Your task to perform on an android device: Open CNN.com Image 0: 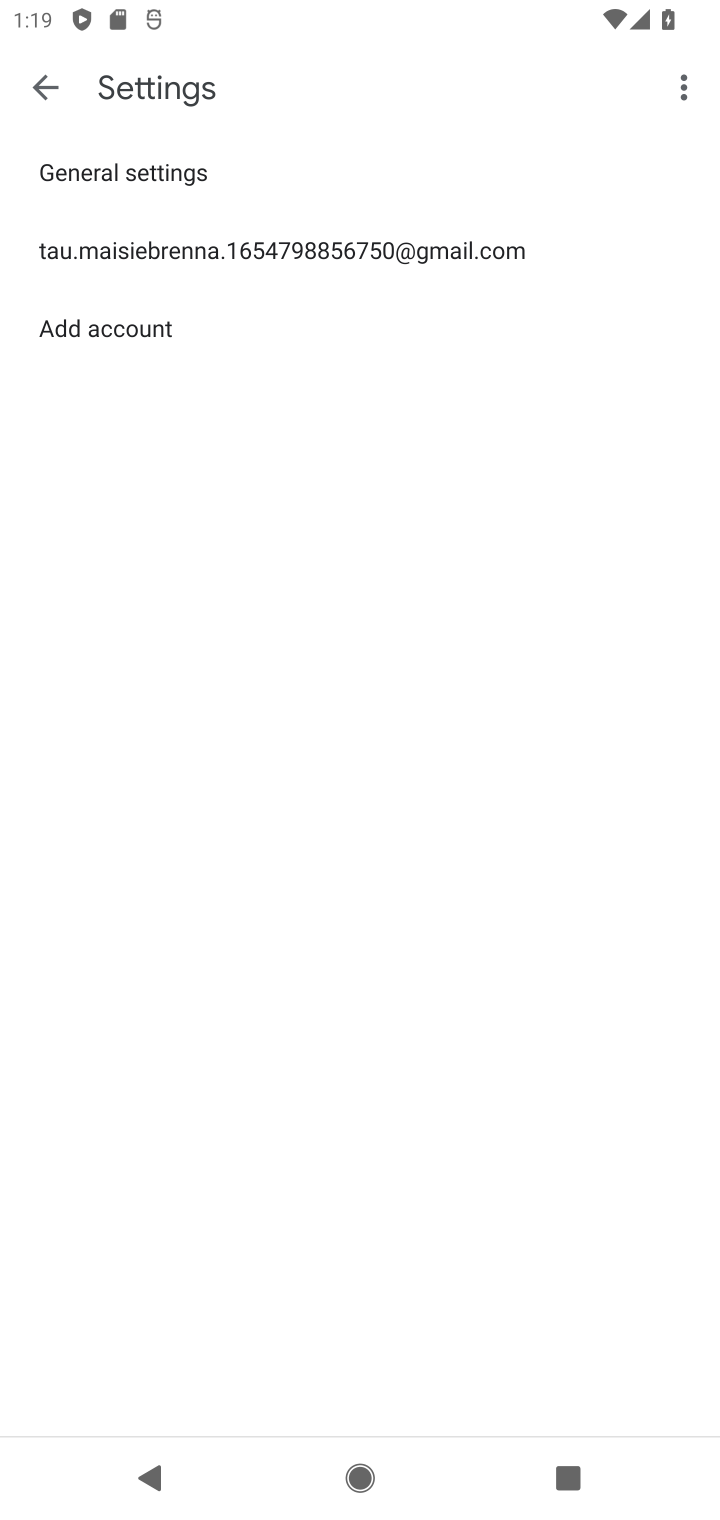
Step 0: press home button
Your task to perform on an android device: Open CNN.com Image 1: 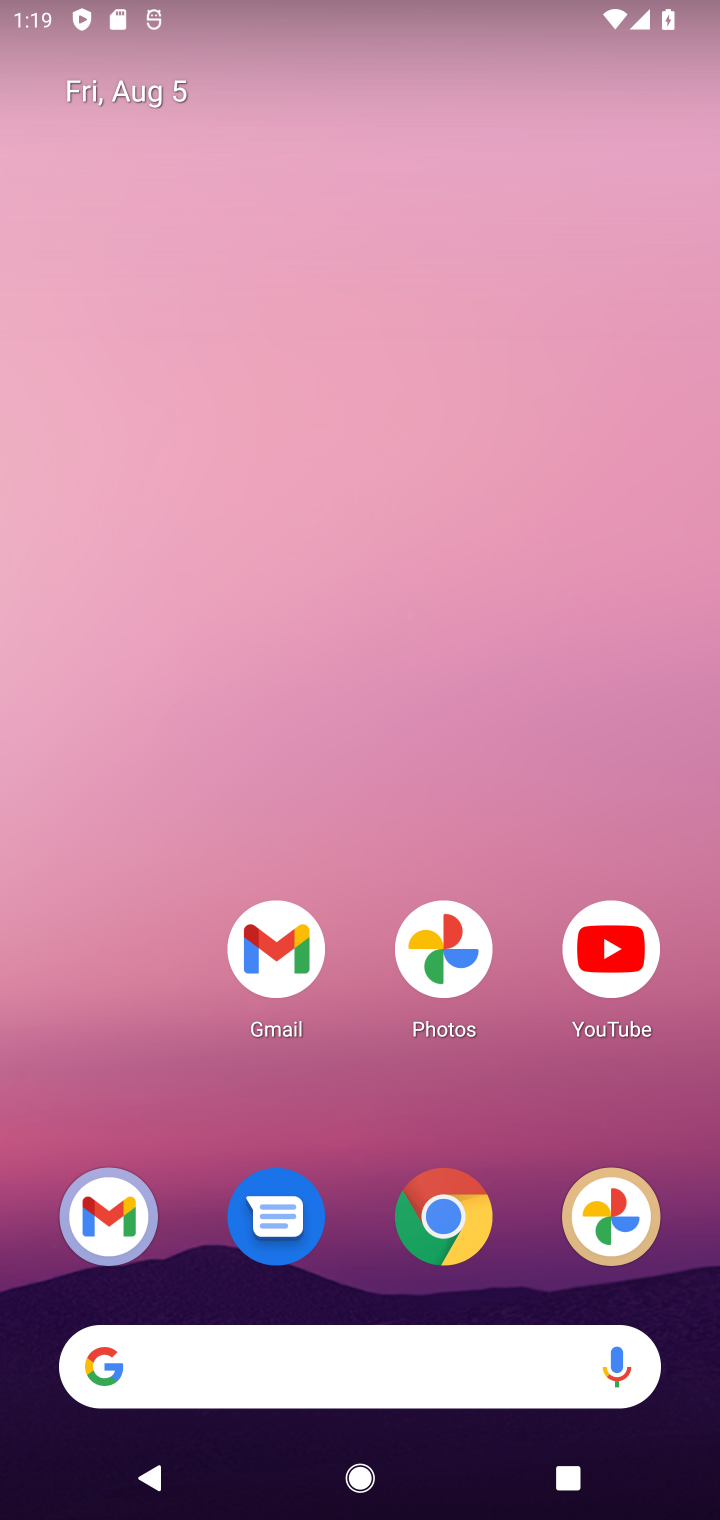
Step 1: click (234, 1377)
Your task to perform on an android device: Open CNN.com Image 2: 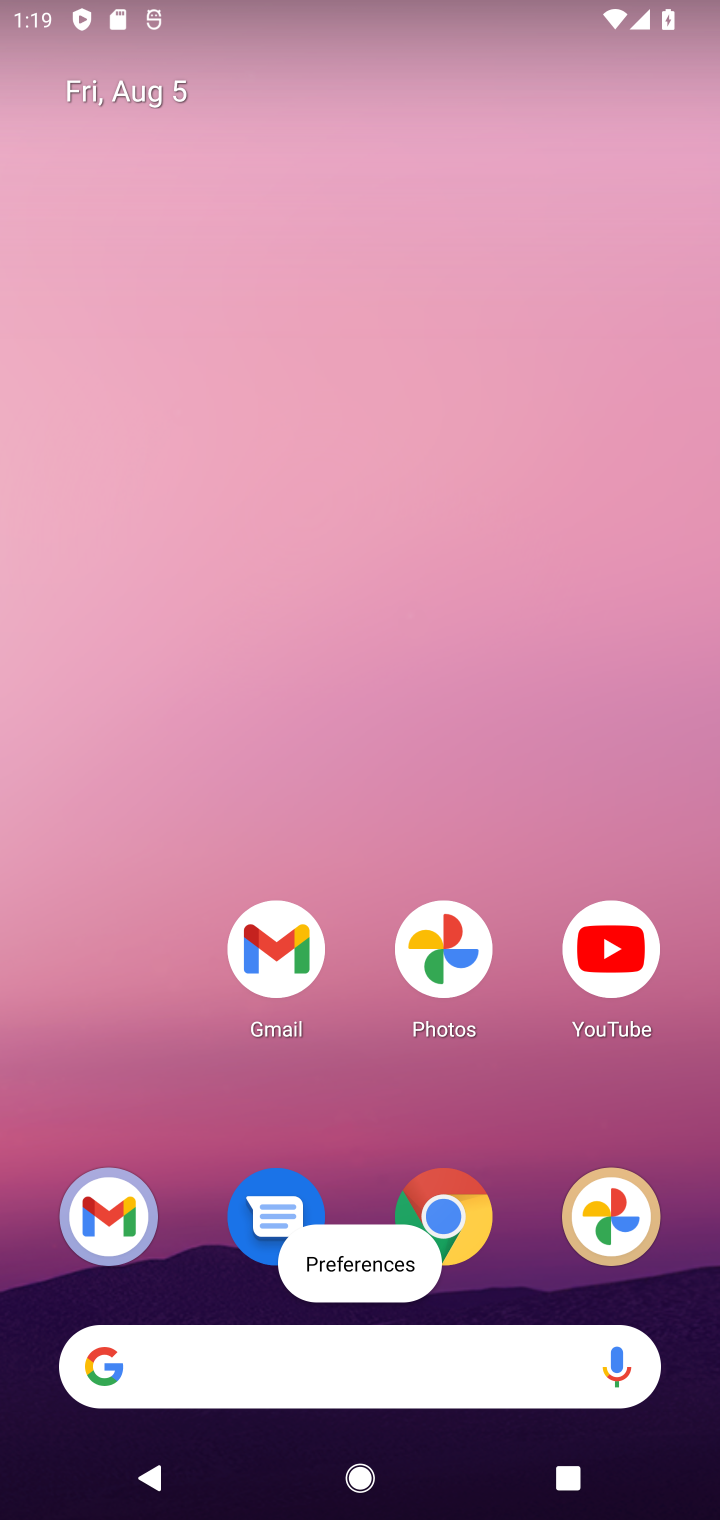
Step 2: type "cnn.com"
Your task to perform on an android device: Open CNN.com Image 3: 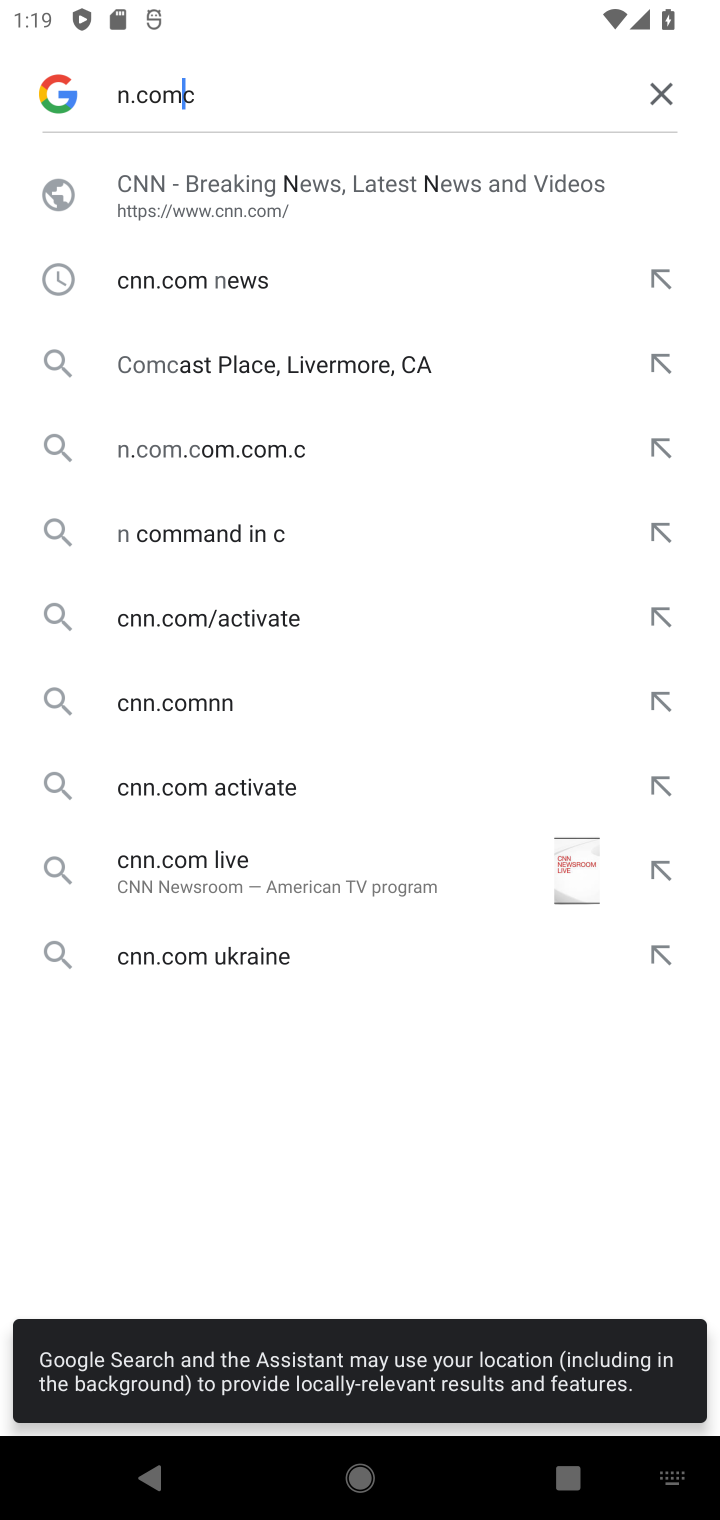
Step 3: click (430, 186)
Your task to perform on an android device: Open CNN.com Image 4: 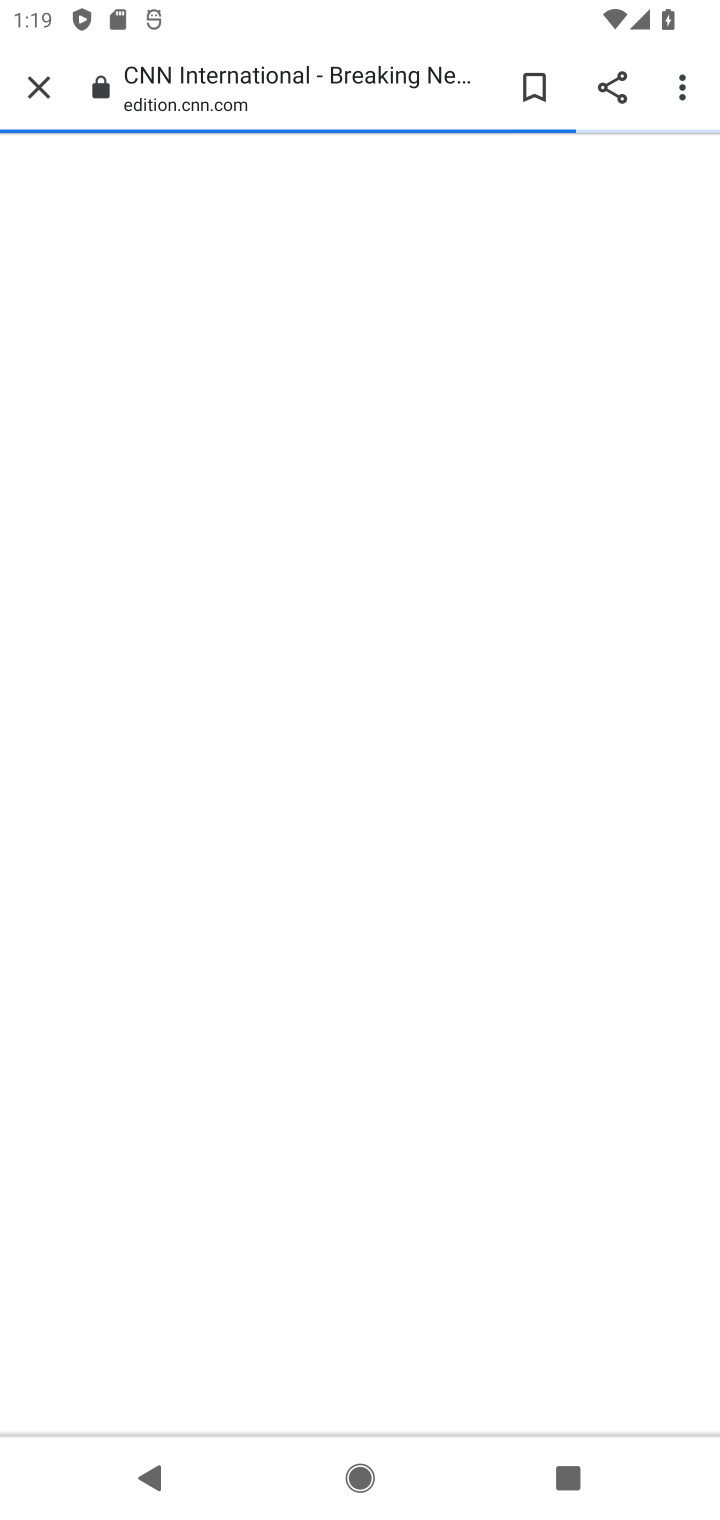
Step 4: task complete